Your task to perform on an android device: uninstall "Instagram" Image 0: 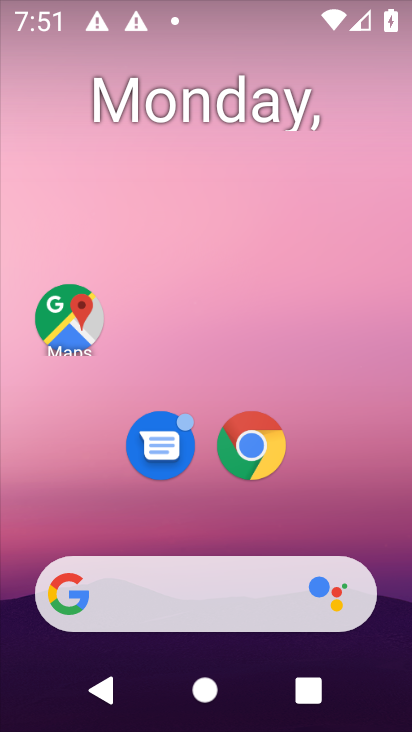
Step 0: drag from (361, 519) to (284, 42)
Your task to perform on an android device: uninstall "Instagram" Image 1: 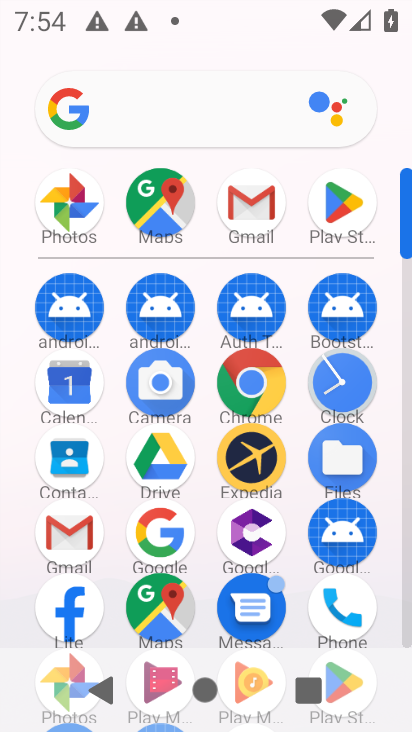
Step 1: click (348, 219)
Your task to perform on an android device: uninstall "Instagram" Image 2: 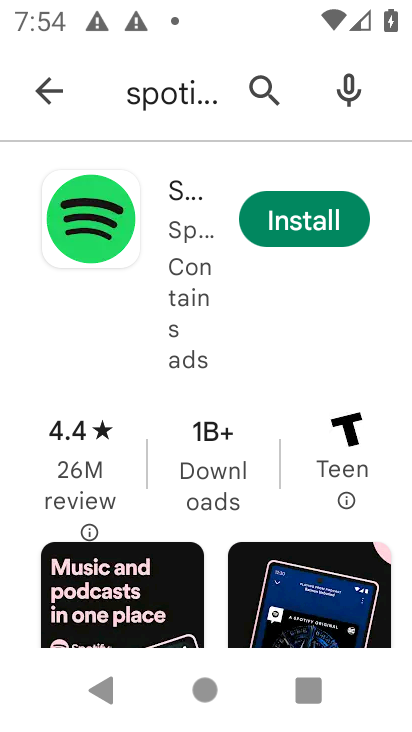
Step 2: press back button
Your task to perform on an android device: uninstall "Instagram" Image 3: 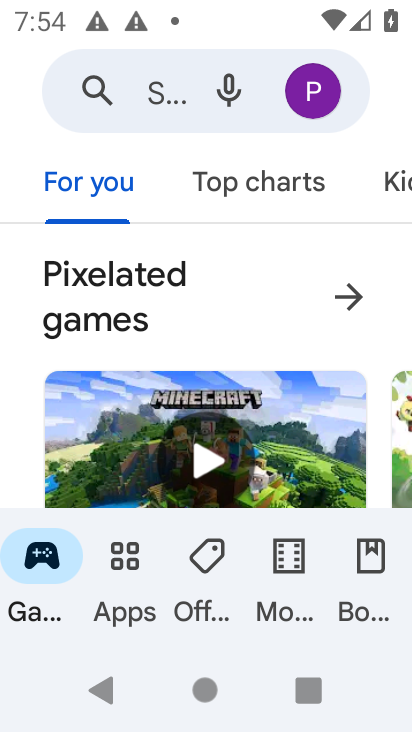
Step 3: click (133, 92)
Your task to perform on an android device: uninstall "Instagram" Image 4: 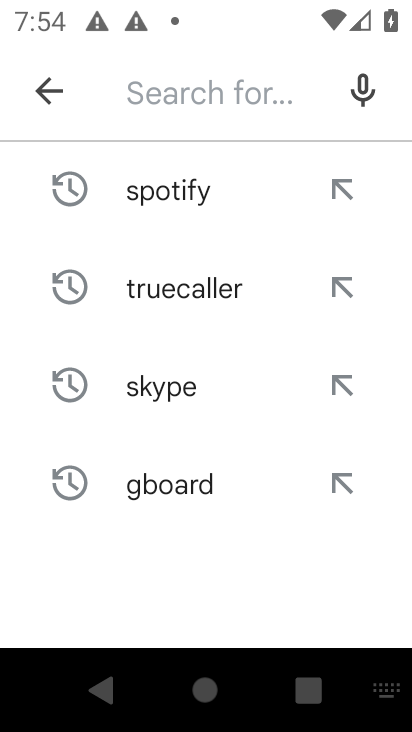
Step 4: type "Instagram"
Your task to perform on an android device: uninstall "Instagram" Image 5: 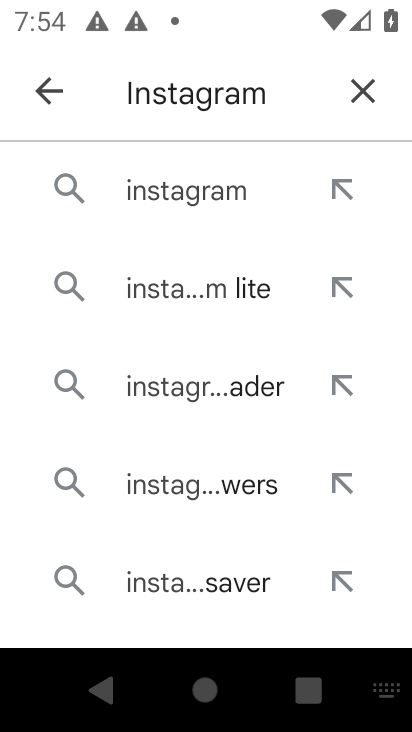
Step 5: click (164, 203)
Your task to perform on an android device: uninstall "Instagram" Image 6: 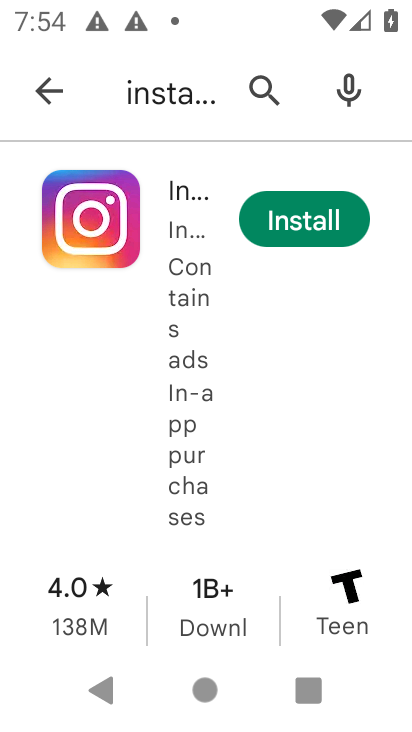
Step 6: task complete